Your task to perform on an android device: turn on location history Image 0: 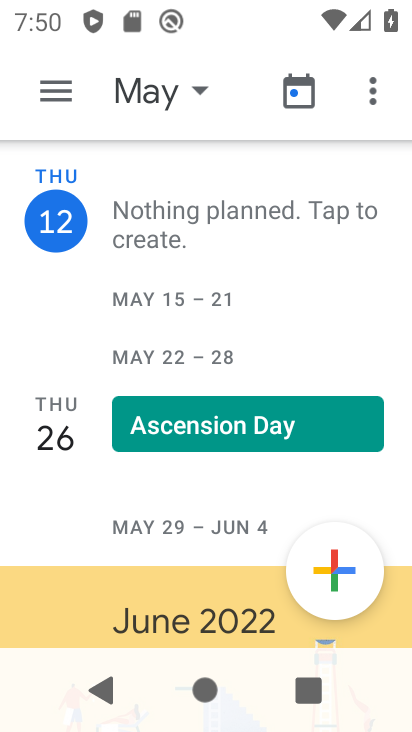
Step 0: press home button
Your task to perform on an android device: turn on location history Image 1: 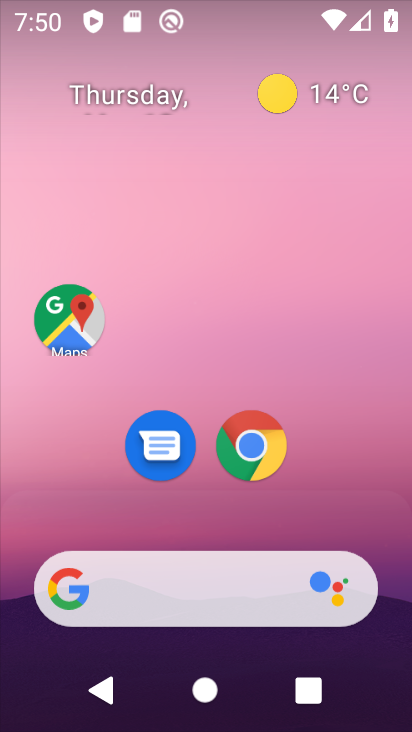
Step 1: drag from (210, 688) to (210, 258)
Your task to perform on an android device: turn on location history Image 2: 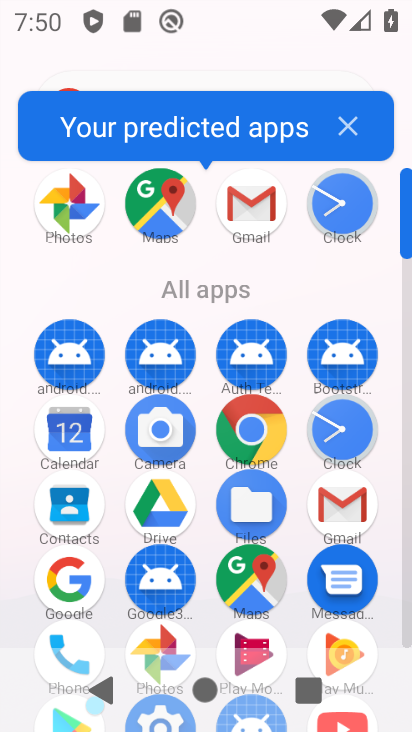
Step 2: drag from (208, 612) to (190, 193)
Your task to perform on an android device: turn on location history Image 3: 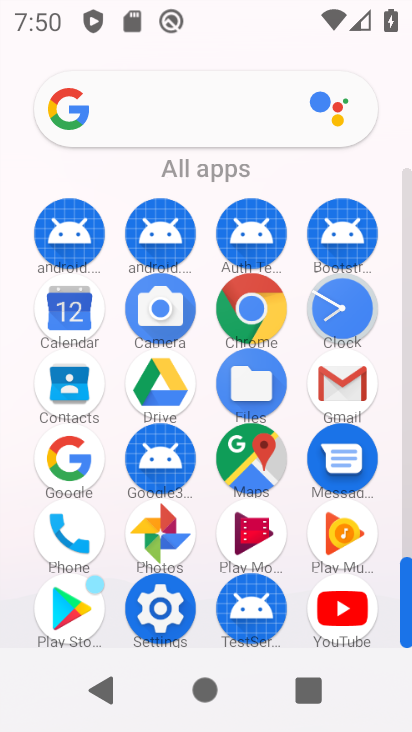
Step 3: click (168, 600)
Your task to perform on an android device: turn on location history Image 4: 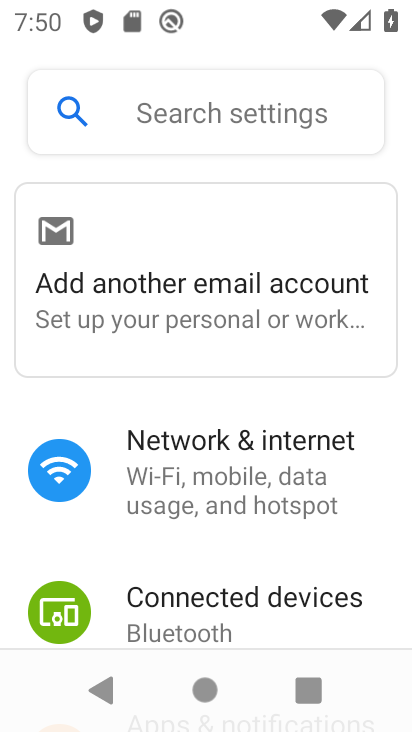
Step 4: drag from (217, 619) to (228, 223)
Your task to perform on an android device: turn on location history Image 5: 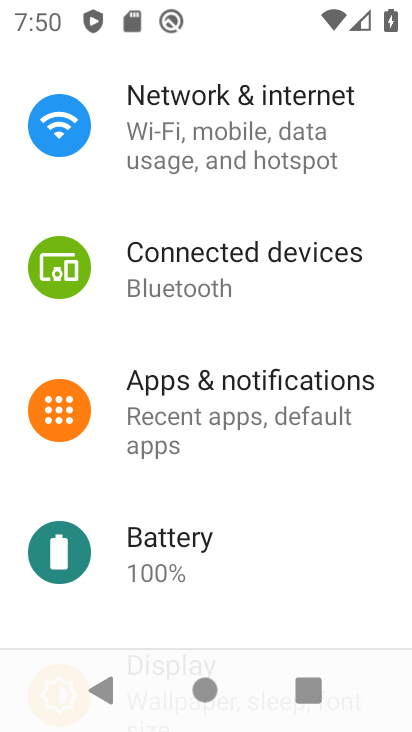
Step 5: drag from (175, 603) to (221, 263)
Your task to perform on an android device: turn on location history Image 6: 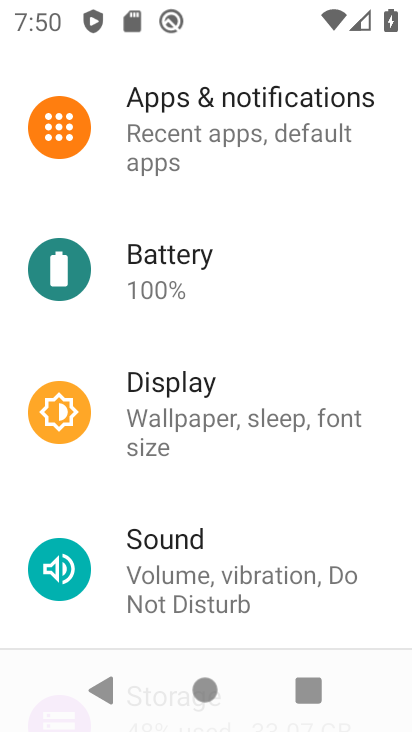
Step 6: drag from (162, 609) to (192, 252)
Your task to perform on an android device: turn on location history Image 7: 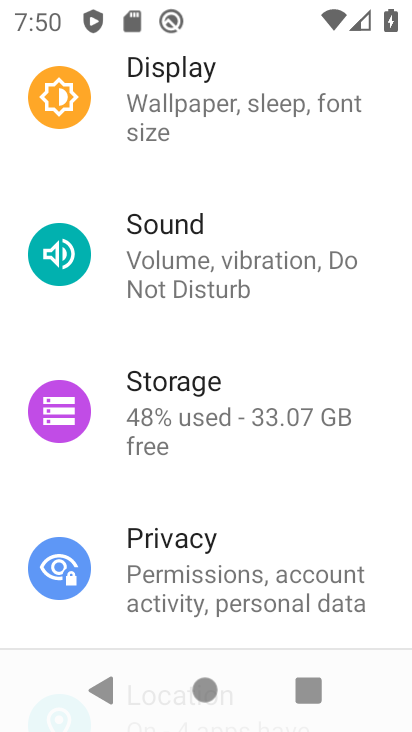
Step 7: drag from (196, 535) to (200, 226)
Your task to perform on an android device: turn on location history Image 8: 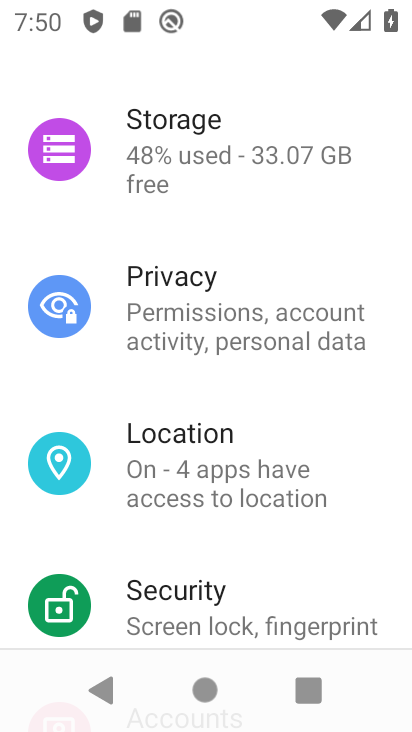
Step 8: click (194, 475)
Your task to perform on an android device: turn on location history Image 9: 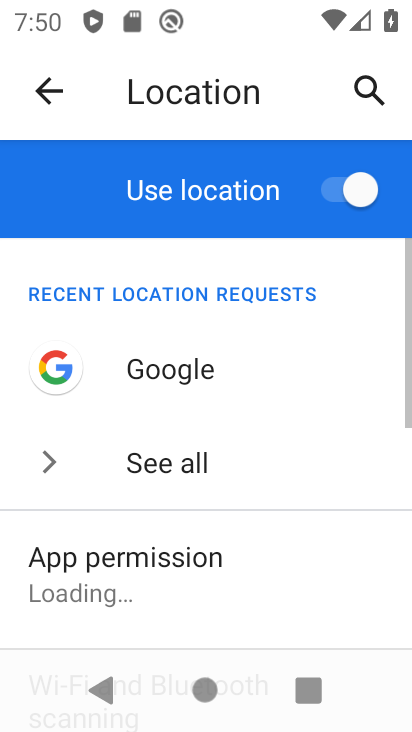
Step 9: drag from (206, 622) to (225, 303)
Your task to perform on an android device: turn on location history Image 10: 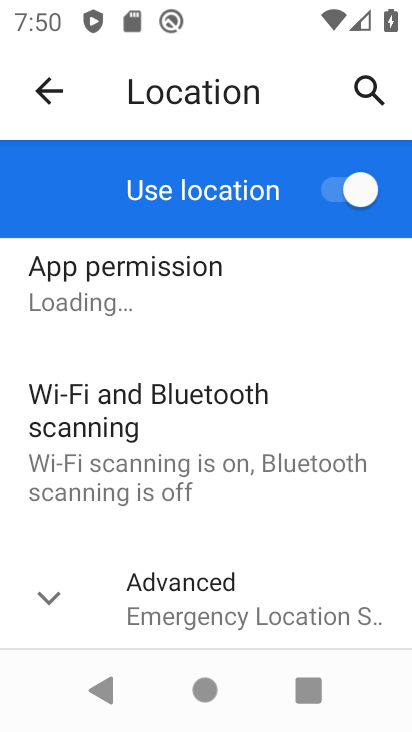
Step 10: click (209, 600)
Your task to perform on an android device: turn on location history Image 11: 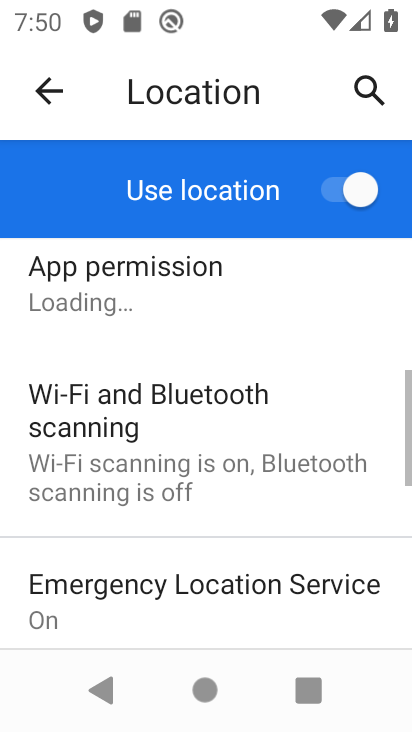
Step 11: drag from (237, 633) to (254, 307)
Your task to perform on an android device: turn on location history Image 12: 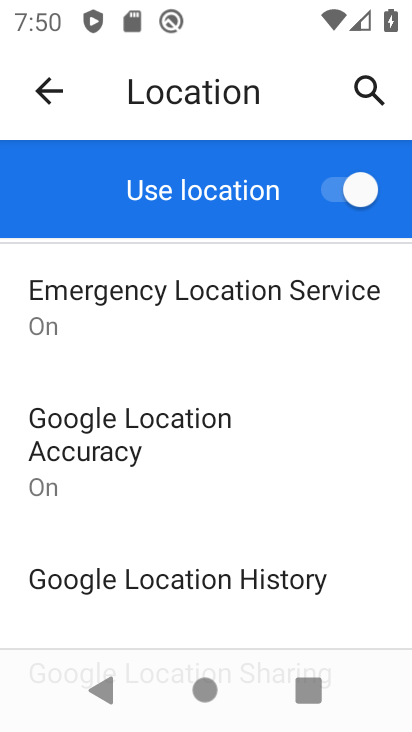
Step 12: drag from (226, 612) to (263, 327)
Your task to perform on an android device: turn on location history Image 13: 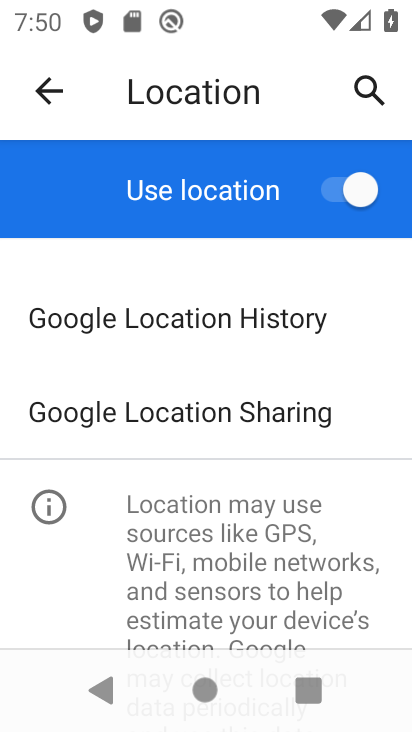
Step 13: click (193, 319)
Your task to perform on an android device: turn on location history Image 14: 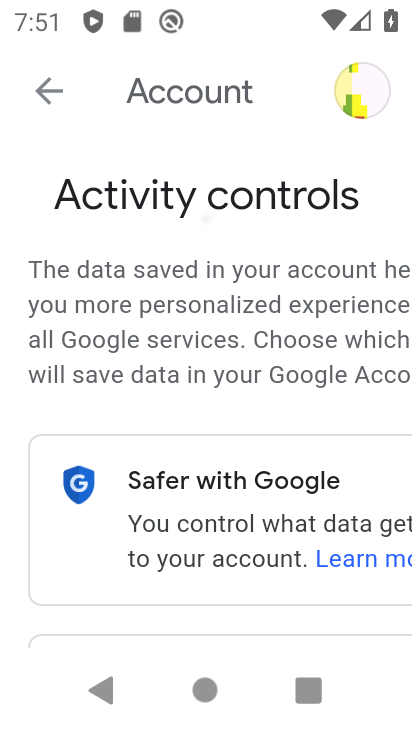
Step 14: drag from (259, 601) to (291, 226)
Your task to perform on an android device: turn on location history Image 15: 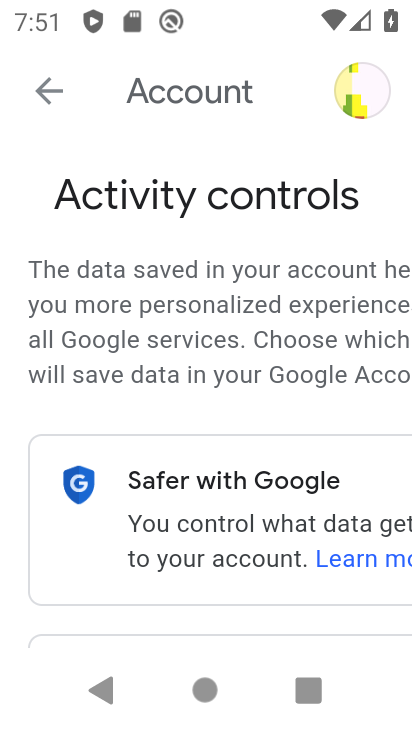
Step 15: drag from (219, 605) to (240, 183)
Your task to perform on an android device: turn on location history Image 16: 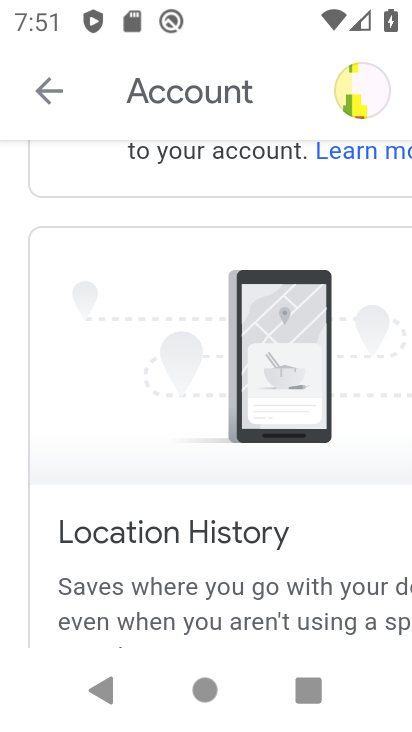
Step 16: drag from (228, 602) to (241, 162)
Your task to perform on an android device: turn on location history Image 17: 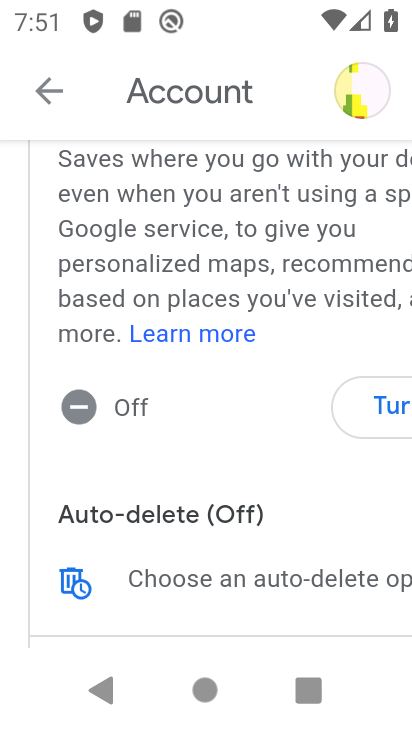
Step 17: click (383, 403)
Your task to perform on an android device: turn on location history Image 18: 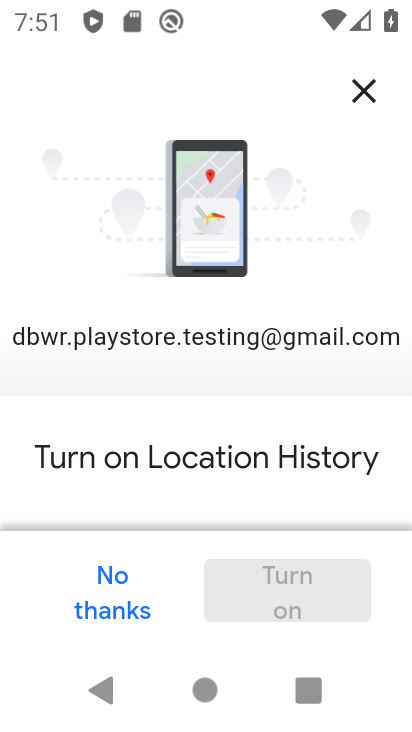
Step 18: drag from (286, 523) to (298, 241)
Your task to perform on an android device: turn on location history Image 19: 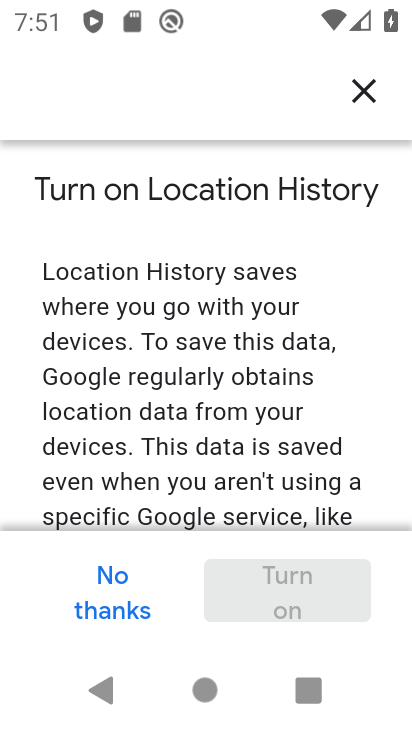
Step 19: drag from (282, 509) to (279, 139)
Your task to perform on an android device: turn on location history Image 20: 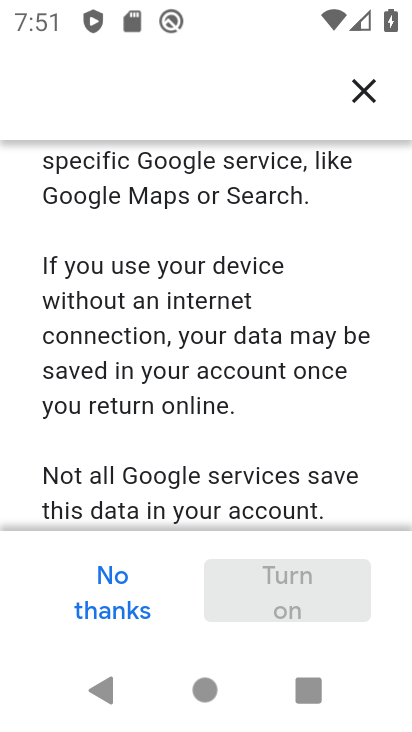
Step 20: drag from (274, 510) to (283, 102)
Your task to perform on an android device: turn on location history Image 21: 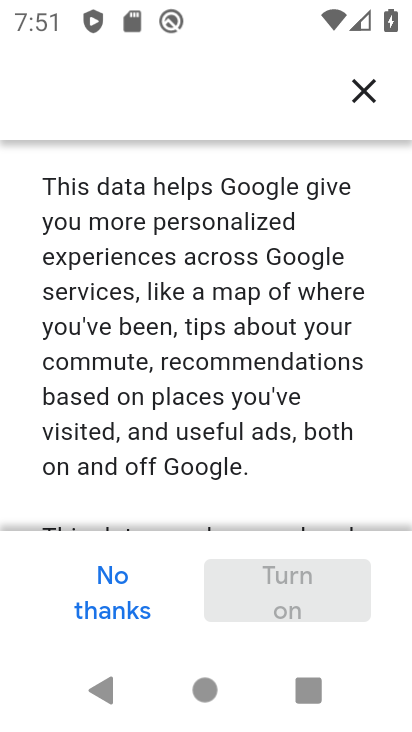
Step 21: drag from (259, 498) to (291, 165)
Your task to perform on an android device: turn on location history Image 22: 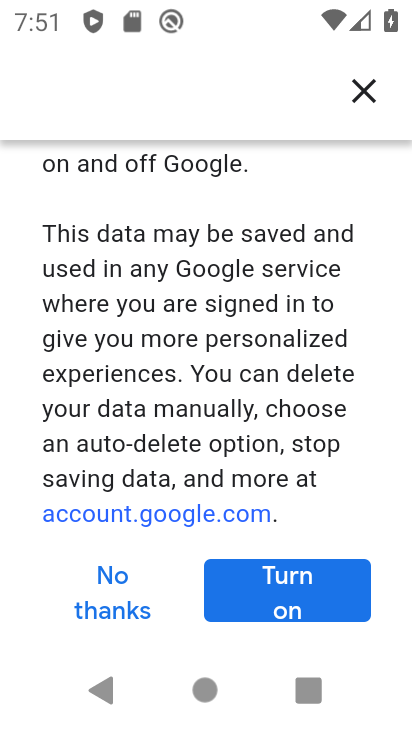
Step 22: click (289, 599)
Your task to perform on an android device: turn on location history Image 23: 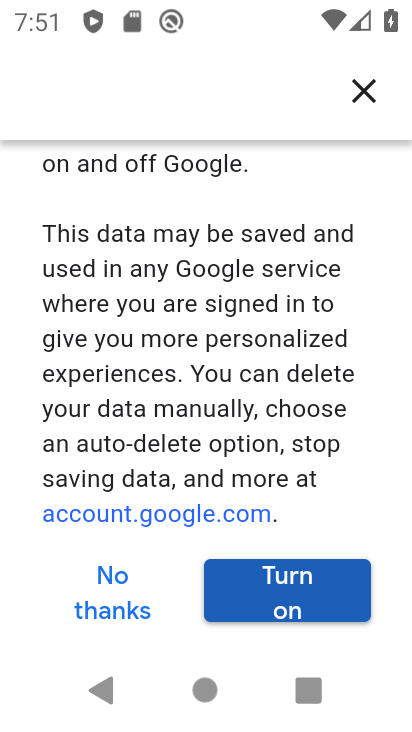
Step 23: click (288, 603)
Your task to perform on an android device: turn on location history Image 24: 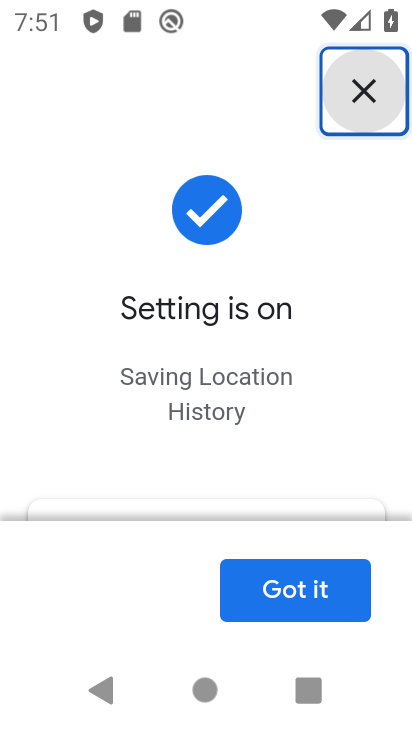
Step 24: task complete